Your task to perform on an android device: toggle notifications settings in the gmail app Image 0: 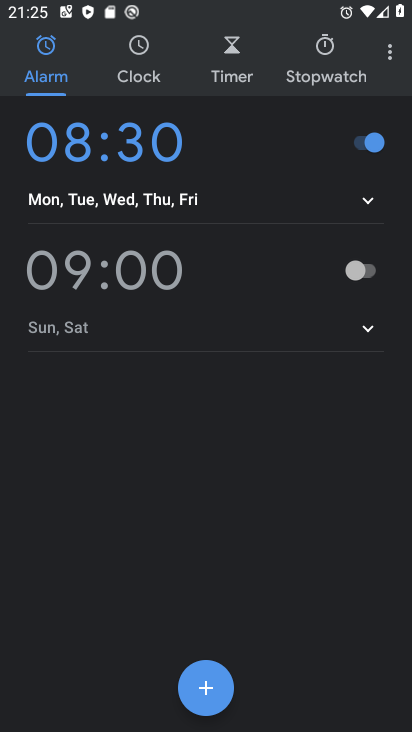
Step 0: press home button
Your task to perform on an android device: toggle notifications settings in the gmail app Image 1: 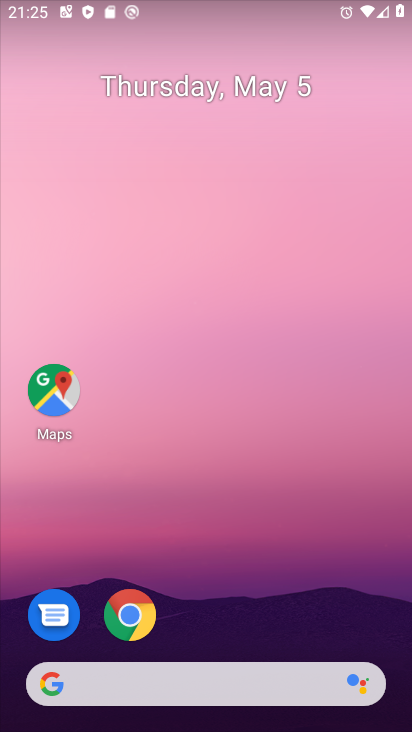
Step 1: drag from (213, 620) to (234, 66)
Your task to perform on an android device: toggle notifications settings in the gmail app Image 2: 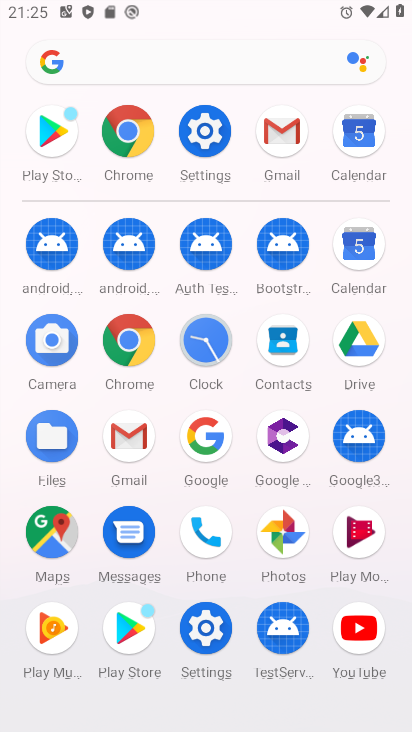
Step 2: click (132, 437)
Your task to perform on an android device: toggle notifications settings in the gmail app Image 3: 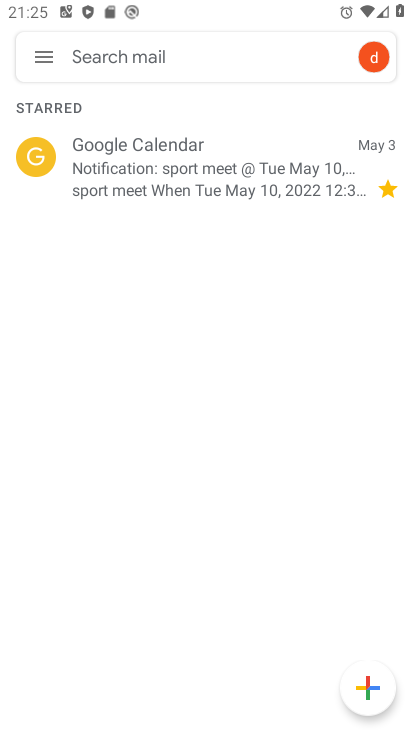
Step 3: click (50, 61)
Your task to perform on an android device: toggle notifications settings in the gmail app Image 4: 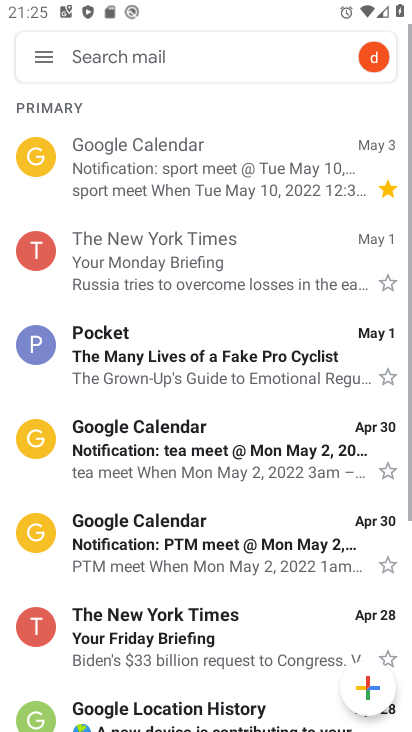
Step 4: click (42, 76)
Your task to perform on an android device: toggle notifications settings in the gmail app Image 5: 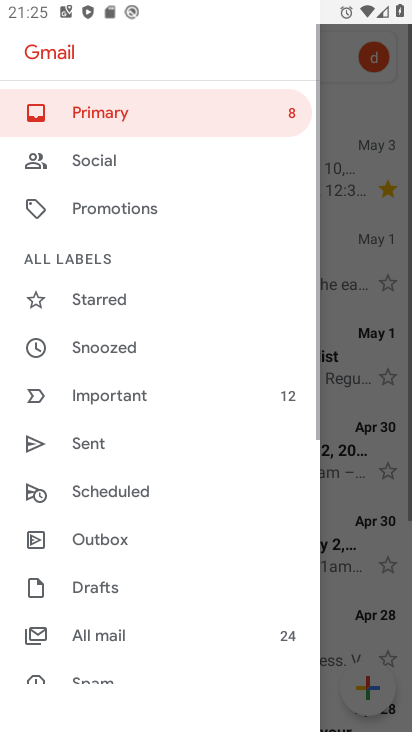
Step 5: drag from (128, 598) to (202, 28)
Your task to perform on an android device: toggle notifications settings in the gmail app Image 6: 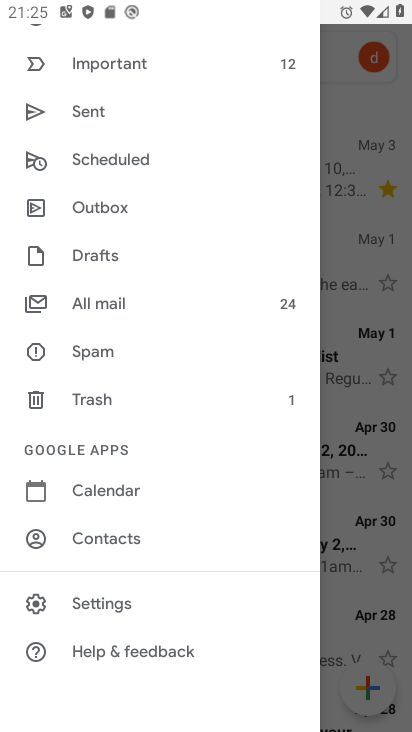
Step 6: click (99, 610)
Your task to perform on an android device: toggle notifications settings in the gmail app Image 7: 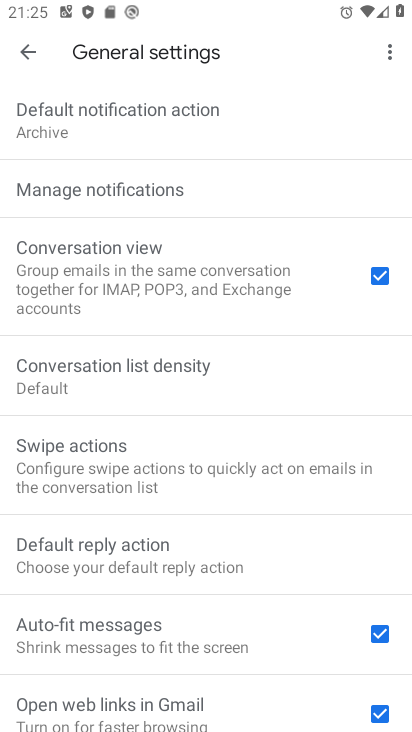
Step 7: click (99, 194)
Your task to perform on an android device: toggle notifications settings in the gmail app Image 8: 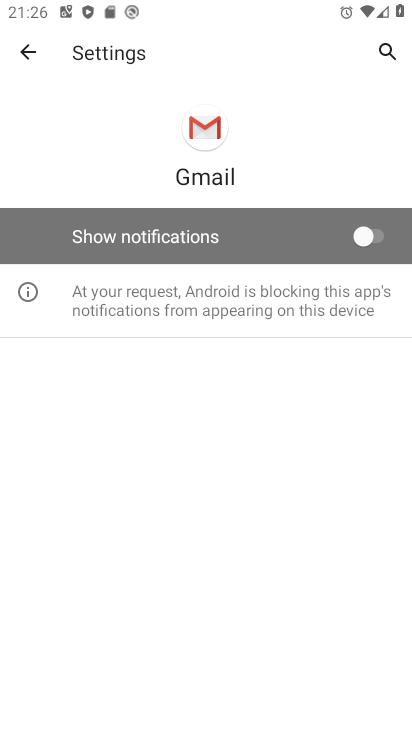
Step 8: click (371, 227)
Your task to perform on an android device: toggle notifications settings in the gmail app Image 9: 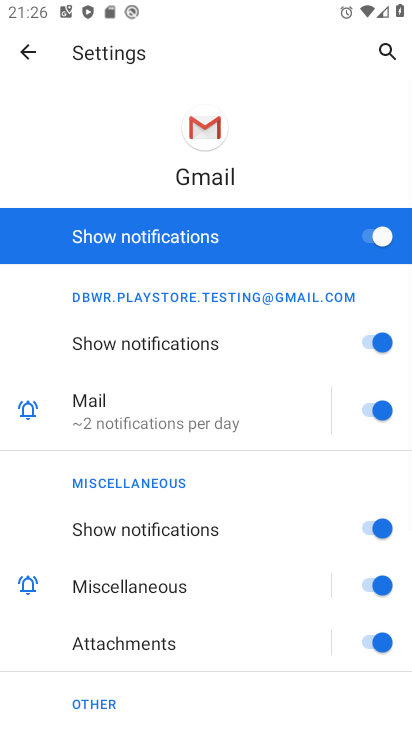
Step 9: task complete